Your task to perform on an android device: turn on improve location accuracy Image 0: 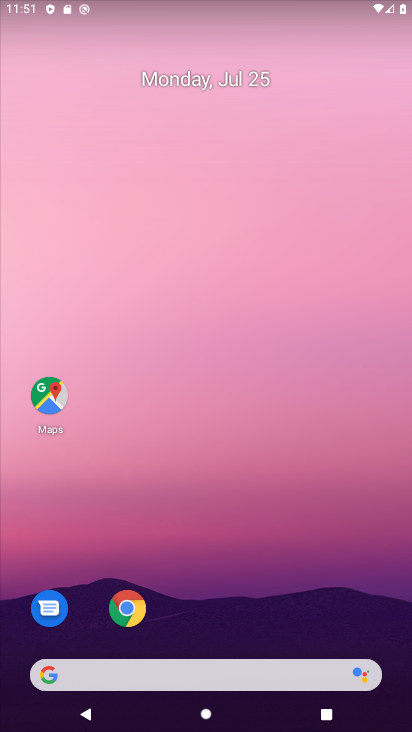
Step 0: task complete